Your task to perform on an android device: turn off notifications in google photos Image 0: 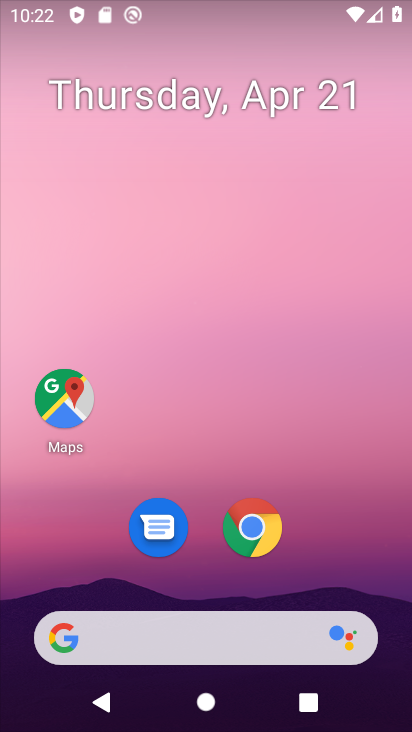
Step 0: drag from (353, 497) to (346, 72)
Your task to perform on an android device: turn off notifications in google photos Image 1: 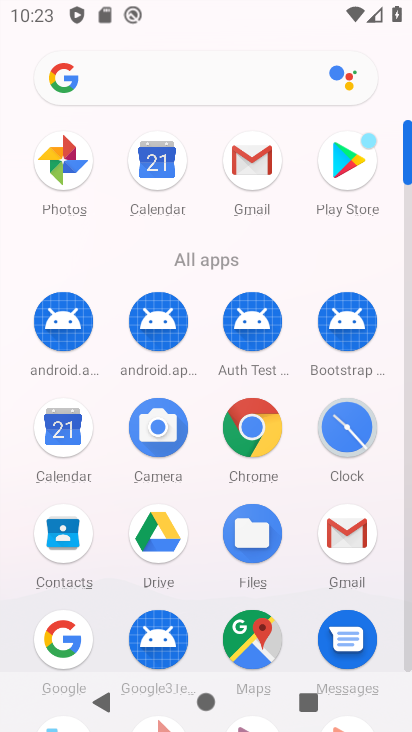
Step 1: drag from (217, 509) to (250, 240)
Your task to perform on an android device: turn off notifications in google photos Image 2: 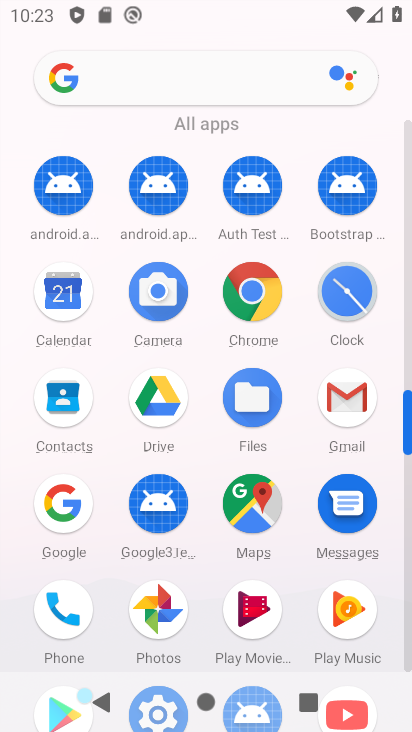
Step 2: click (164, 614)
Your task to perform on an android device: turn off notifications in google photos Image 3: 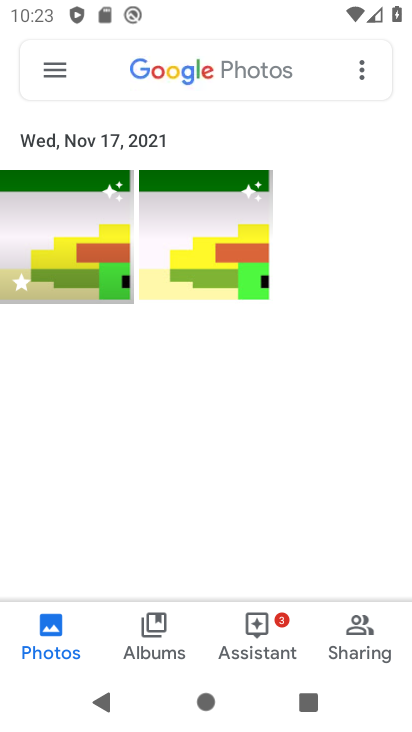
Step 3: click (52, 64)
Your task to perform on an android device: turn off notifications in google photos Image 4: 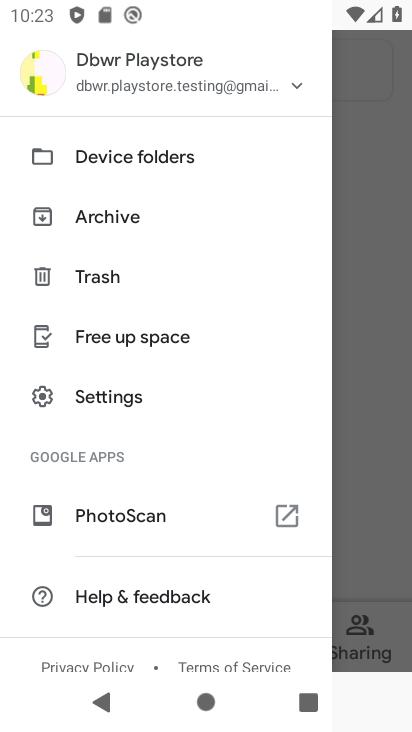
Step 4: drag from (185, 574) to (211, 412)
Your task to perform on an android device: turn off notifications in google photos Image 5: 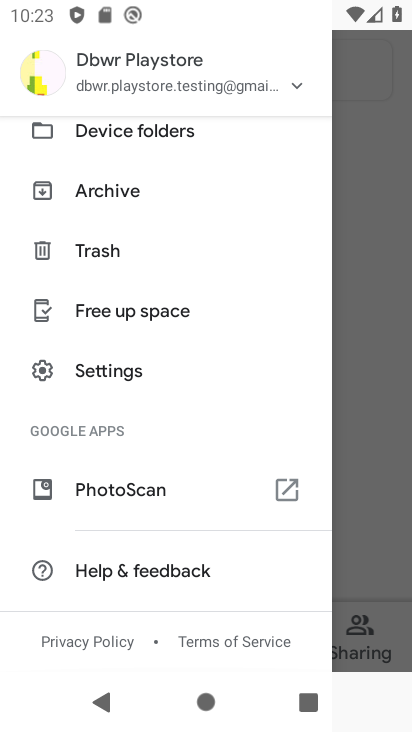
Step 5: click (119, 375)
Your task to perform on an android device: turn off notifications in google photos Image 6: 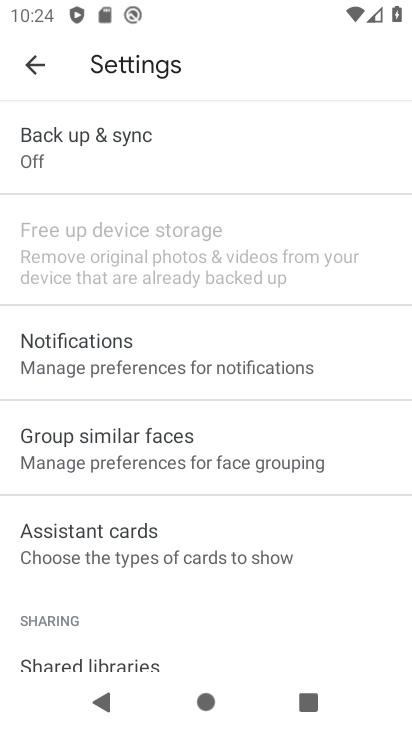
Step 6: click (138, 372)
Your task to perform on an android device: turn off notifications in google photos Image 7: 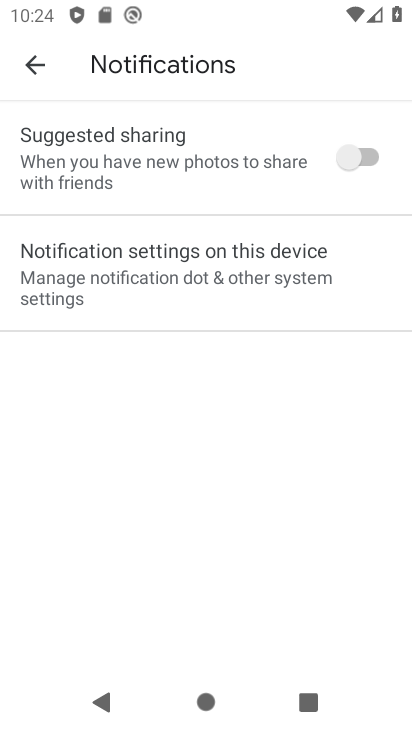
Step 7: click (141, 288)
Your task to perform on an android device: turn off notifications in google photos Image 8: 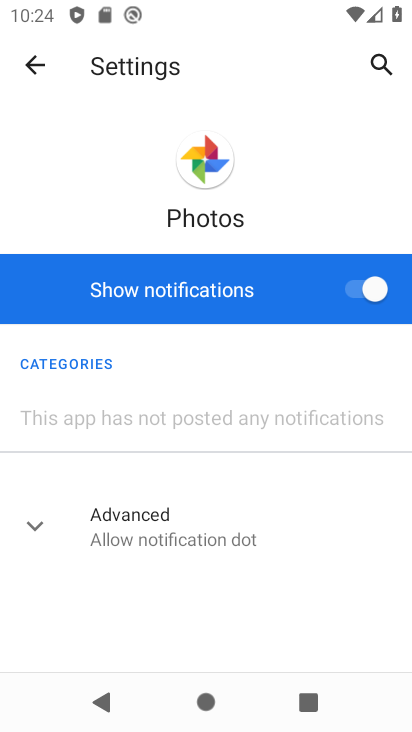
Step 8: click (370, 282)
Your task to perform on an android device: turn off notifications in google photos Image 9: 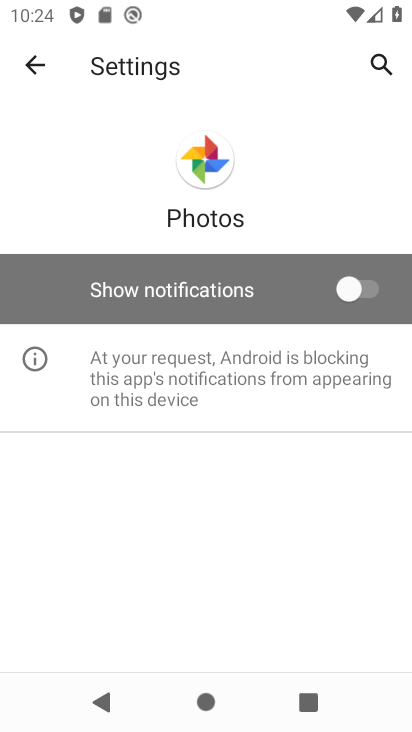
Step 9: task complete